Your task to perform on an android device: Show me the alarms in the clock app Image 0: 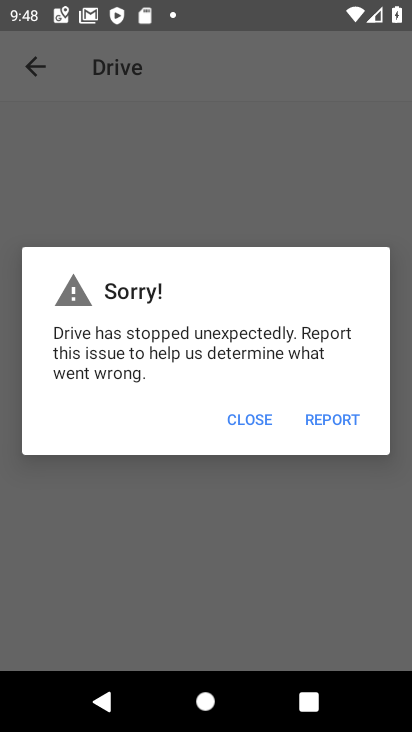
Step 0: press home button
Your task to perform on an android device: Show me the alarms in the clock app Image 1: 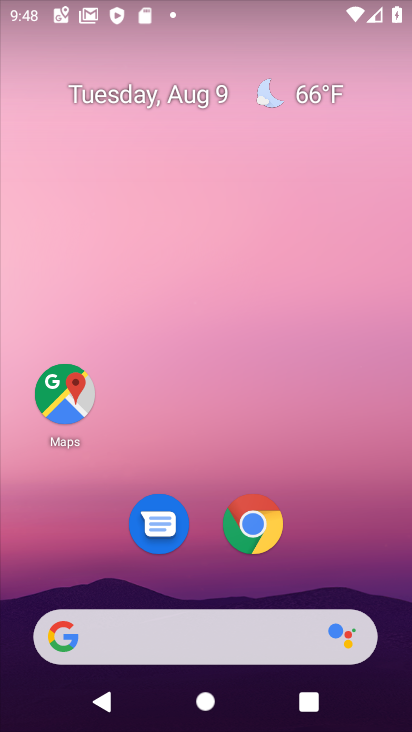
Step 1: drag from (193, 559) to (231, 196)
Your task to perform on an android device: Show me the alarms in the clock app Image 2: 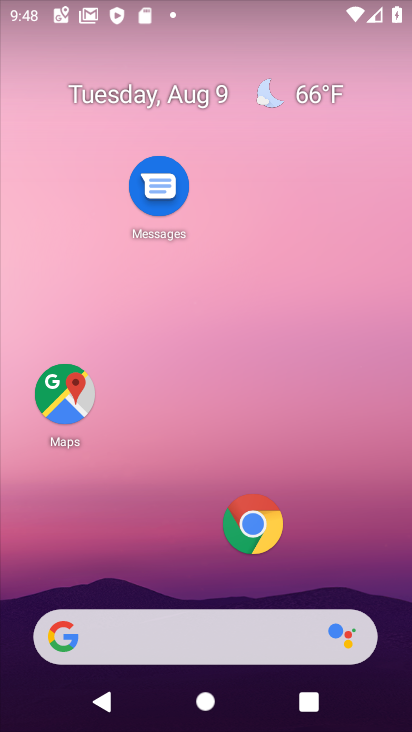
Step 2: drag from (211, 593) to (229, 152)
Your task to perform on an android device: Show me the alarms in the clock app Image 3: 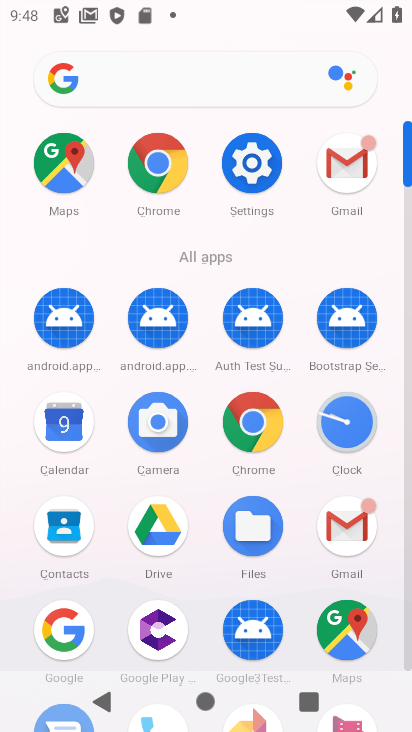
Step 3: click (358, 413)
Your task to perform on an android device: Show me the alarms in the clock app Image 4: 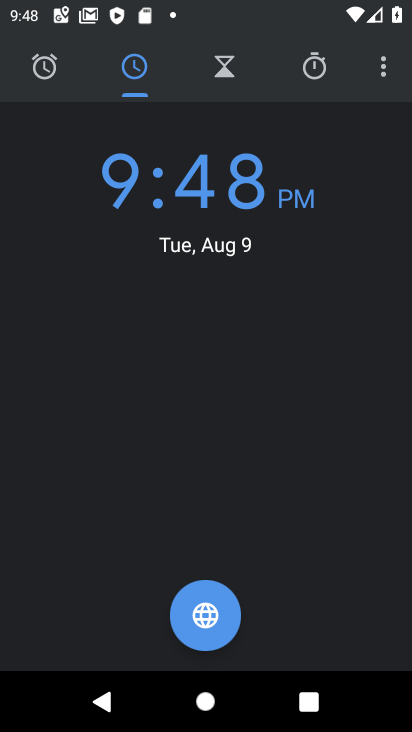
Step 4: click (47, 81)
Your task to perform on an android device: Show me the alarms in the clock app Image 5: 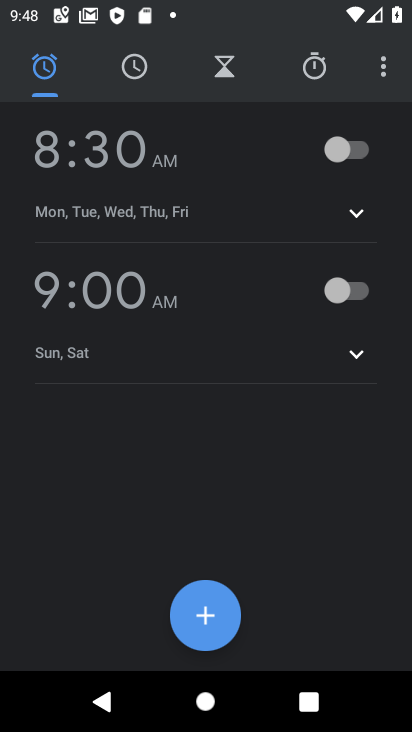
Step 5: task complete